Your task to perform on an android device: turn off translation in the chrome app Image 0: 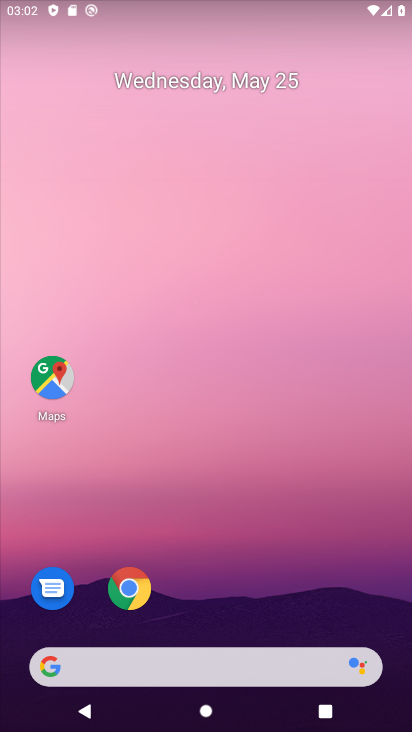
Step 0: click (345, 305)
Your task to perform on an android device: turn off translation in the chrome app Image 1: 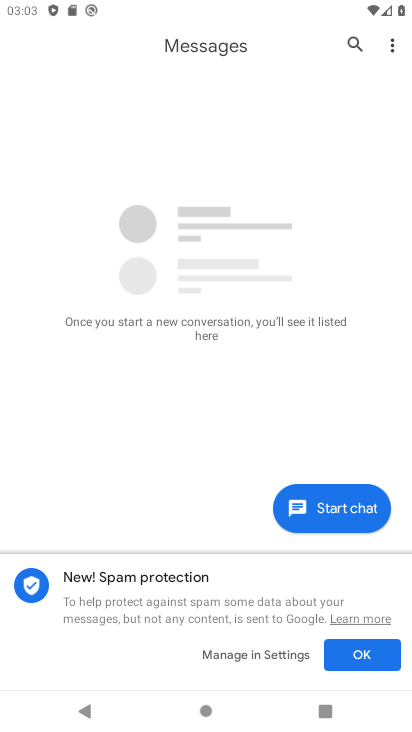
Step 1: press home button
Your task to perform on an android device: turn off translation in the chrome app Image 2: 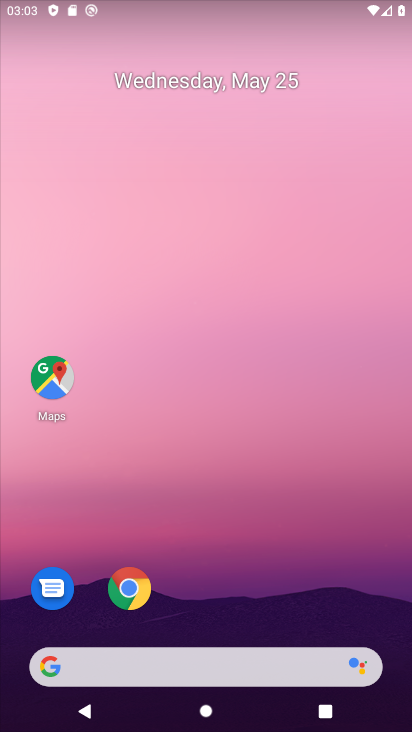
Step 2: click (145, 577)
Your task to perform on an android device: turn off translation in the chrome app Image 3: 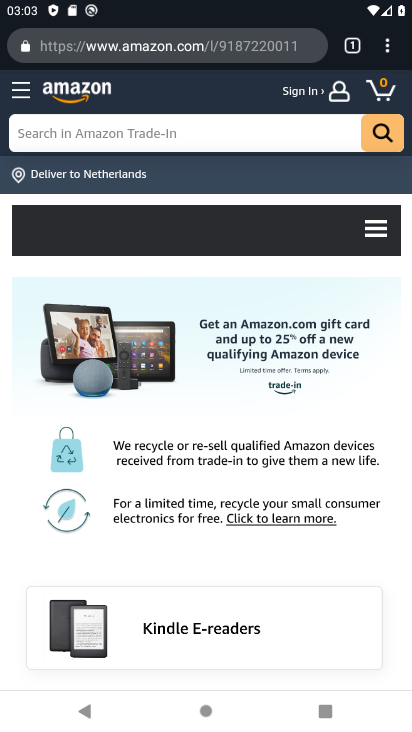
Step 3: drag from (393, 41) to (207, 552)
Your task to perform on an android device: turn off translation in the chrome app Image 4: 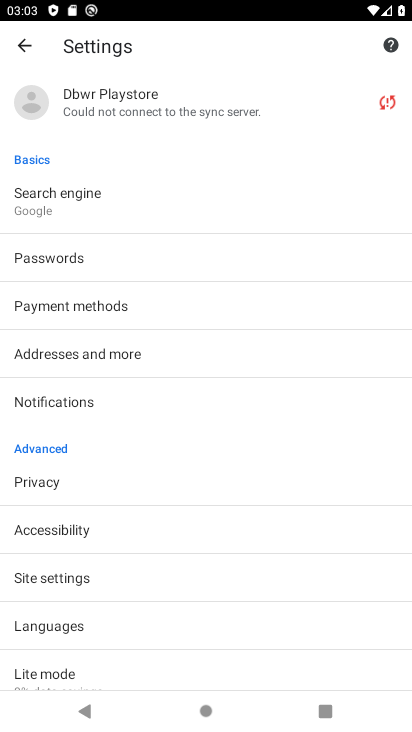
Step 4: click (86, 621)
Your task to perform on an android device: turn off translation in the chrome app Image 5: 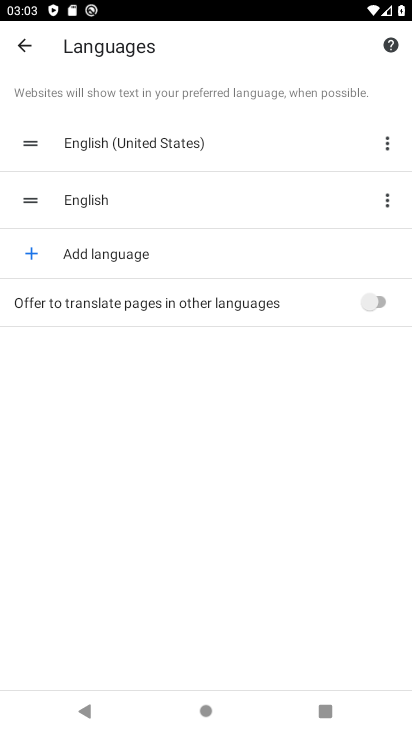
Step 5: task complete